Your task to perform on an android device: change text size in settings app Image 0: 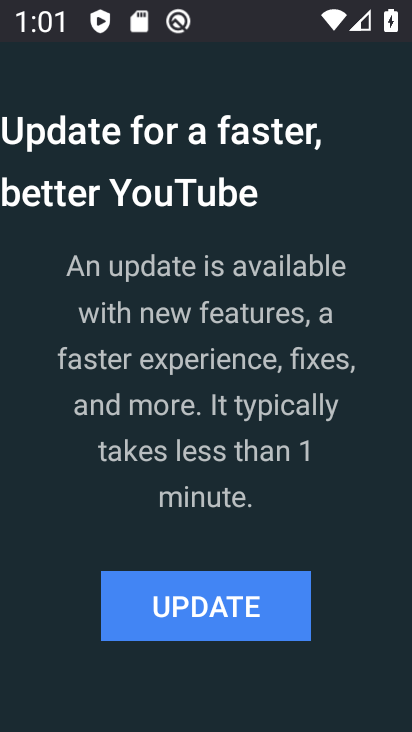
Step 0: press back button
Your task to perform on an android device: change text size in settings app Image 1: 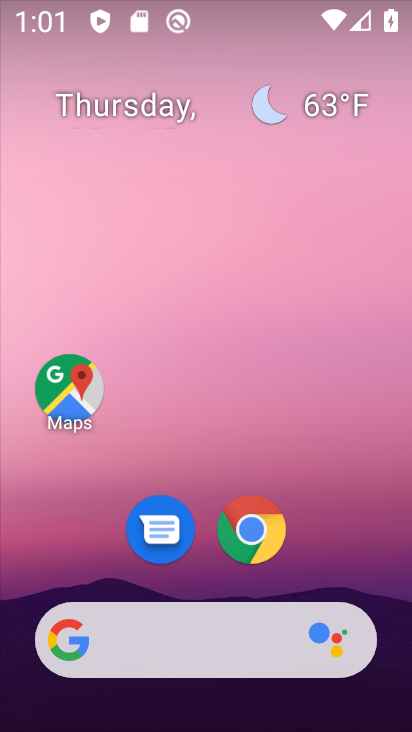
Step 1: drag from (336, 551) to (247, 48)
Your task to perform on an android device: change text size in settings app Image 2: 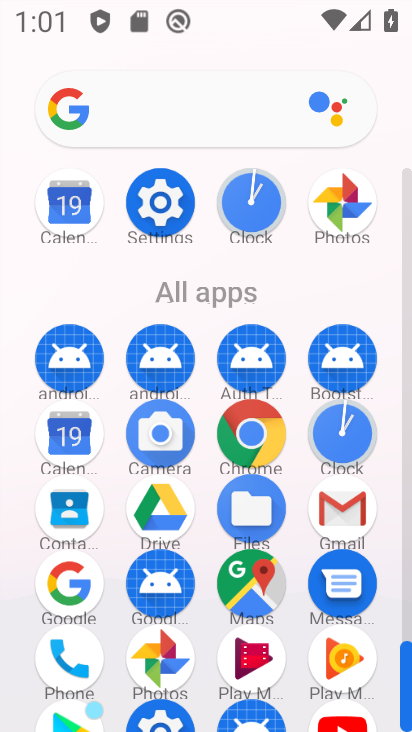
Step 2: click (159, 204)
Your task to perform on an android device: change text size in settings app Image 3: 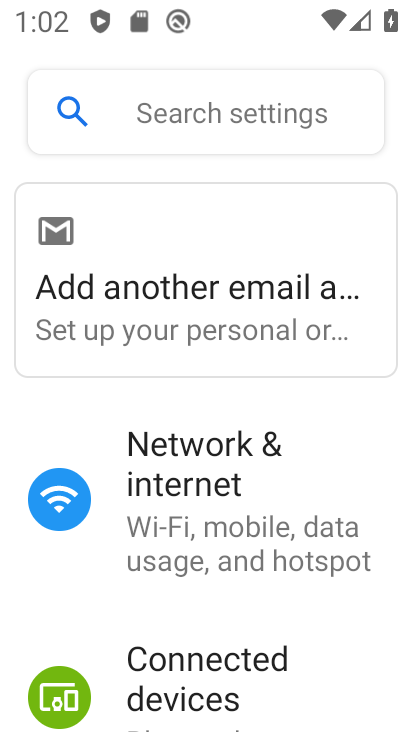
Step 3: drag from (306, 468) to (349, 325)
Your task to perform on an android device: change text size in settings app Image 4: 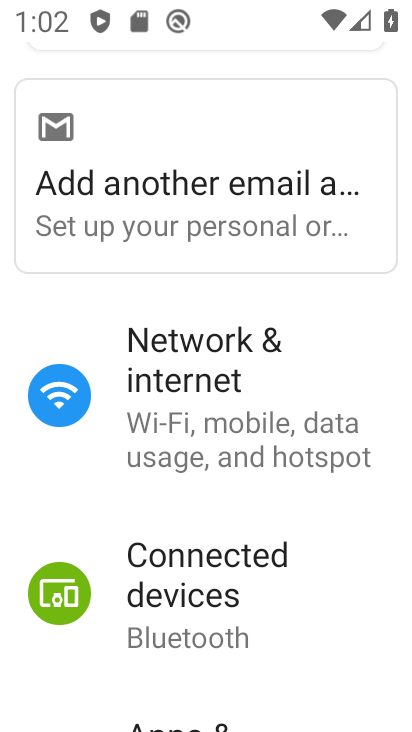
Step 4: drag from (298, 584) to (359, 342)
Your task to perform on an android device: change text size in settings app Image 5: 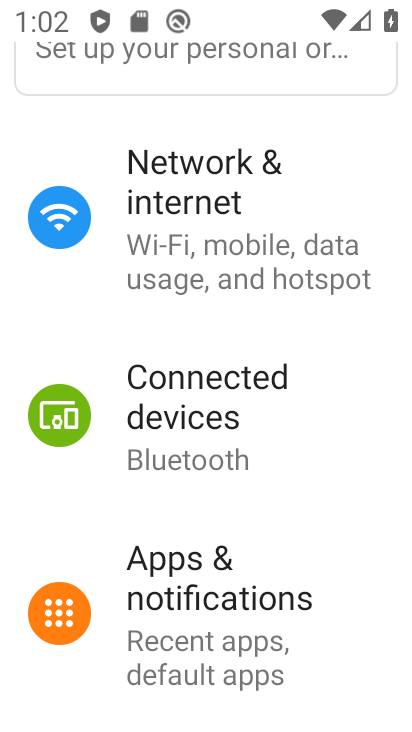
Step 5: drag from (232, 509) to (291, 343)
Your task to perform on an android device: change text size in settings app Image 6: 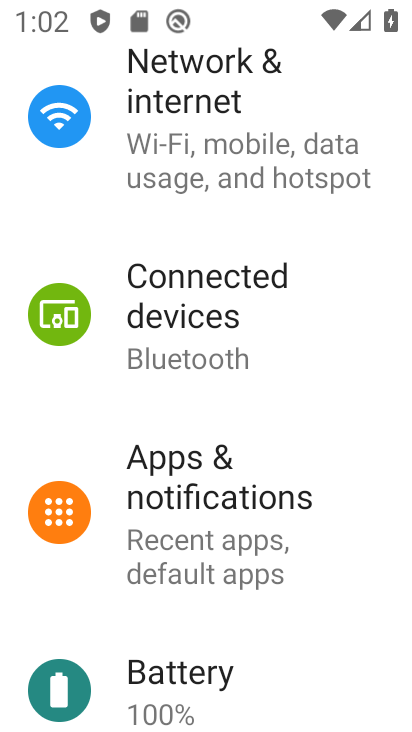
Step 6: drag from (186, 608) to (289, 387)
Your task to perform on an android device: change text size in settings app Image 7: 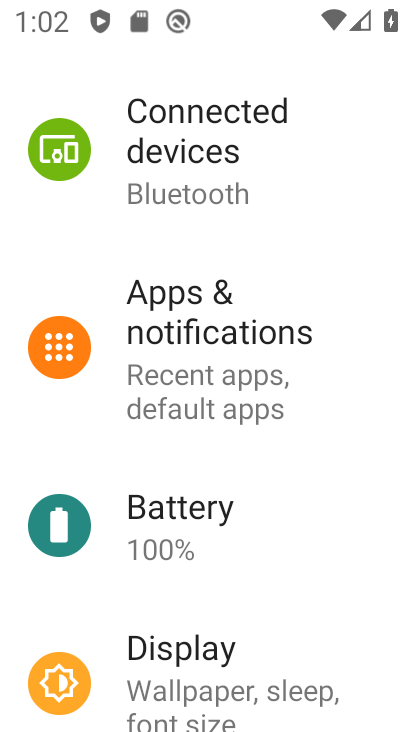
Step 7: drag from (195, 578) to (234, 406)
Your task to perform on an android device: change text size in settings app Image 8: 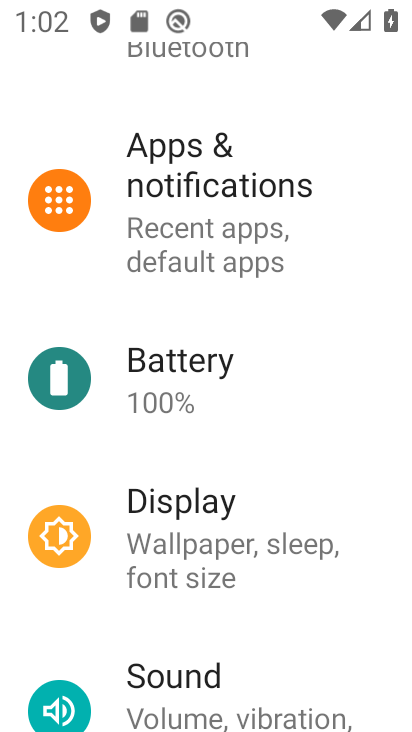
Step 8: drag from (164, 461) to (254, 310)
Your task to perform on an android device: change text size in settings app Image 9: 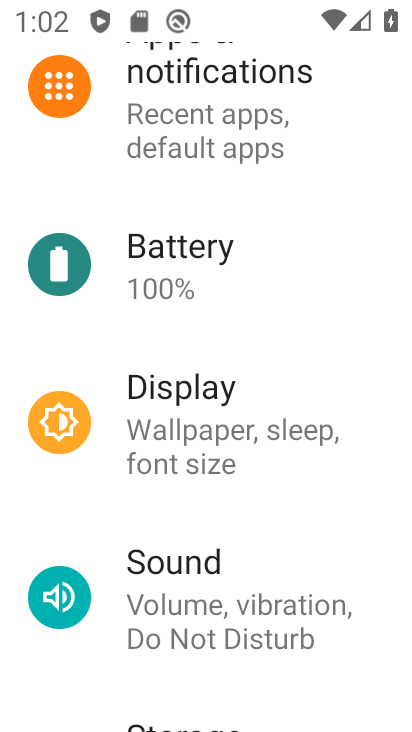
Step 9: drag from (178, 450) to (231, 358)
Your task to perform on an android device: change text size in settings app Image 10: 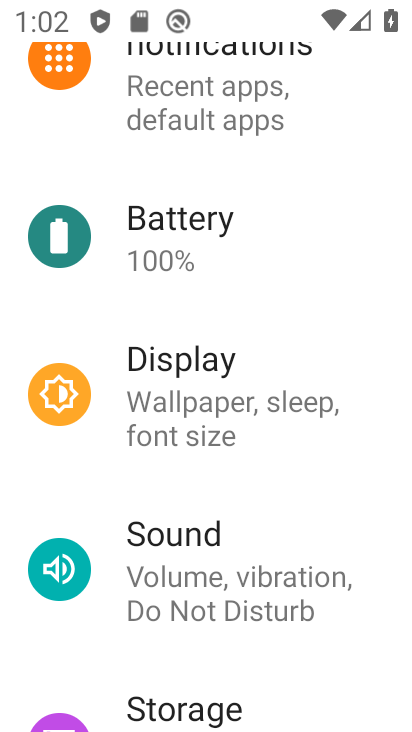
Step 10: drag from (197, 444) to (271, 325)
Your task to perform on an android device: change text size in settings app Image 11: 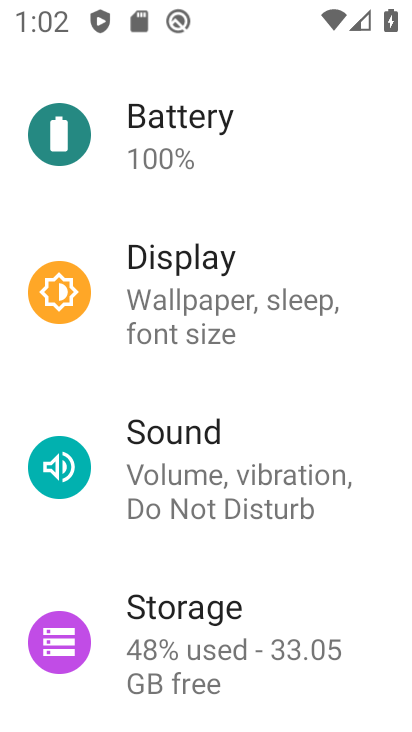
Step 11: drag from (154, 575) to (250, 358)
Your task to perform on an android device: change text size in settings app Image 12: 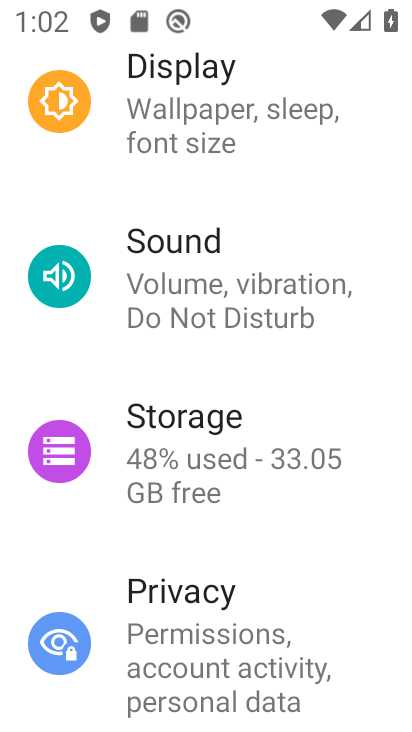
Step 12: drag from (173, 562) to (246, 361)
Your task to perform on an android device: change text size in settings app Image 13: 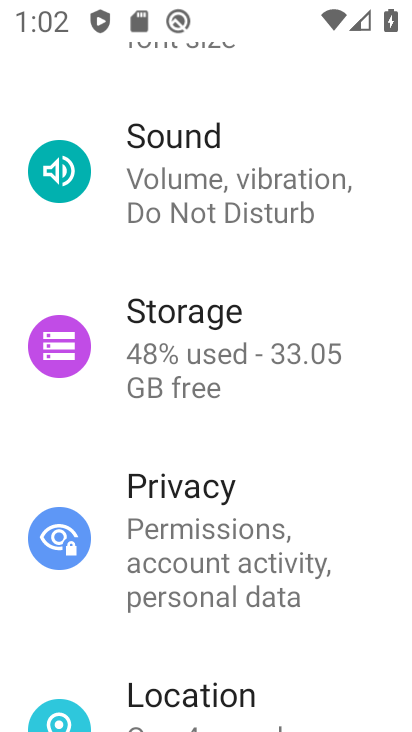
Step 13: drag from (161, 448) to (254, 334)
Your task to perform on an android device: change text size in settings app Image 14: 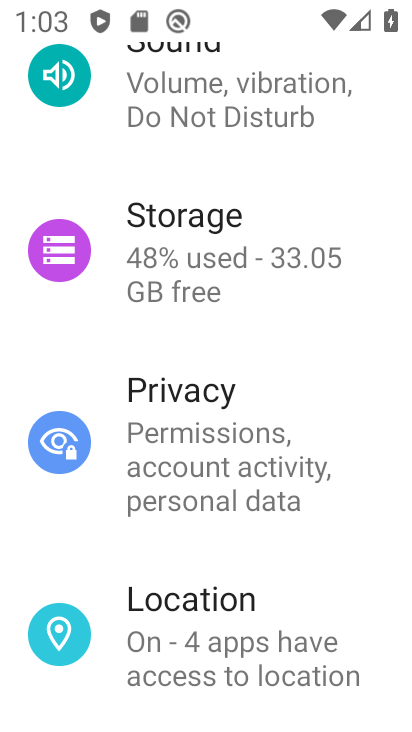
Step 14: drag from (148, 557) to (252, 379)
Your task to perform on an android device: change text size in settings app Image 15: 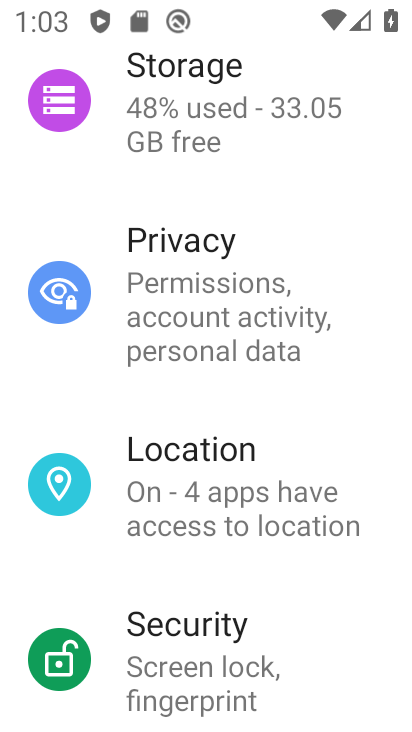
Step 15: drag from (151, 558) to (231, 382)
Your task to perform on an android device: change text size in settings app Image 16: 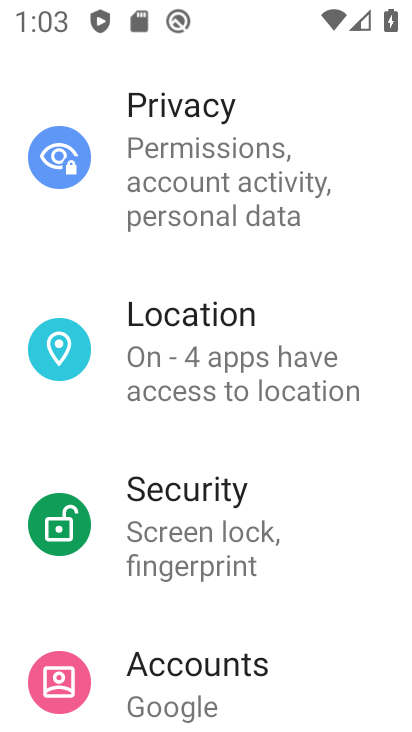
Step 16: drag from (123, 597) to (222, 418)
Your task to perform on an android device: change text size in settings app Image 17: 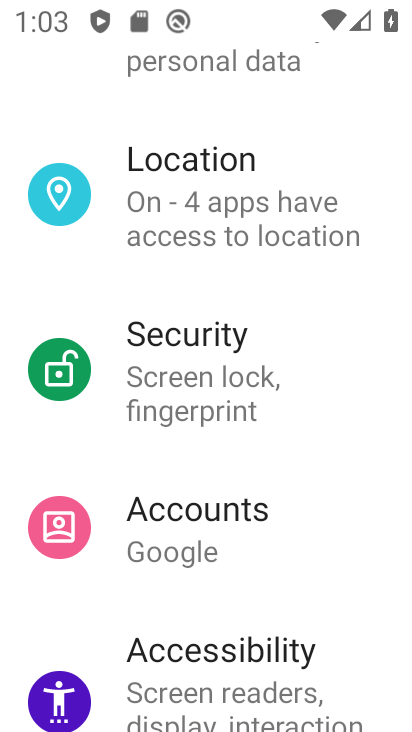
Step 17: drag from (134, 613) to (222, 432)
Your task to perform on an android device: change text size in settings app Image 18: 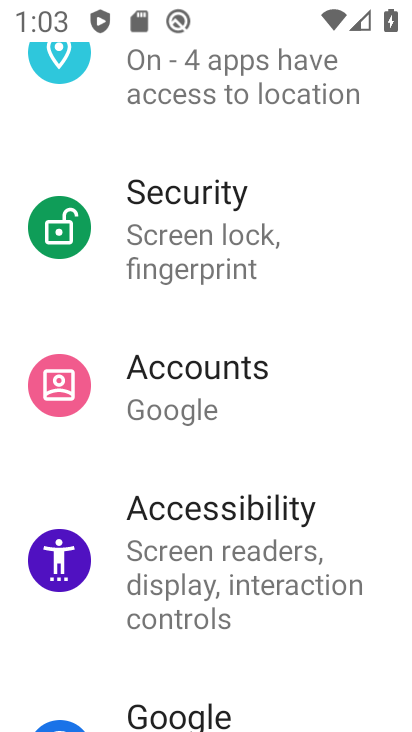
Step 18: click (222, 515)
Your task to perform on an android device: change text size in settings app Image 19: 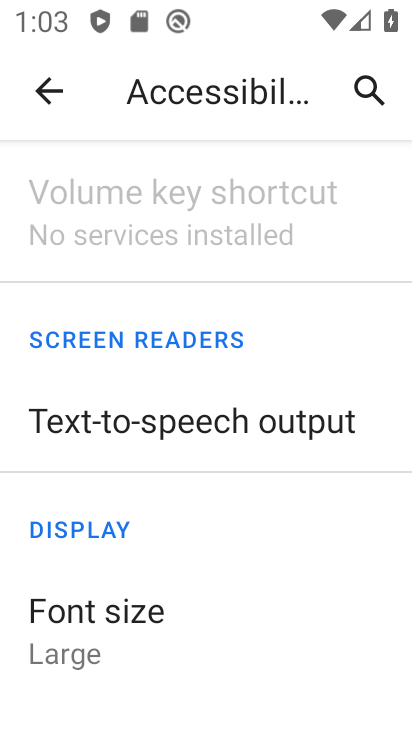
Step 19: click (117, 617)
Your task to perform on an android device: change text size in settings app Image 20: 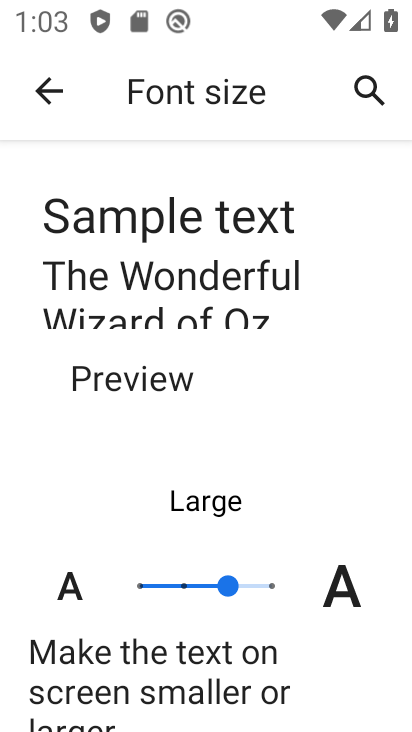
Step 20: click (179, 584)
Your task to perform on an android device: change text size in settings app Image 21: 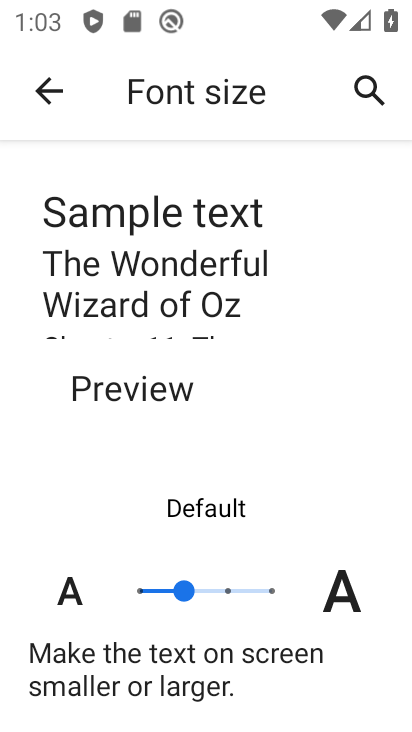
Step 21: task complete